Your task to perform on an android device: Find coffee shops on Maps Image 0: 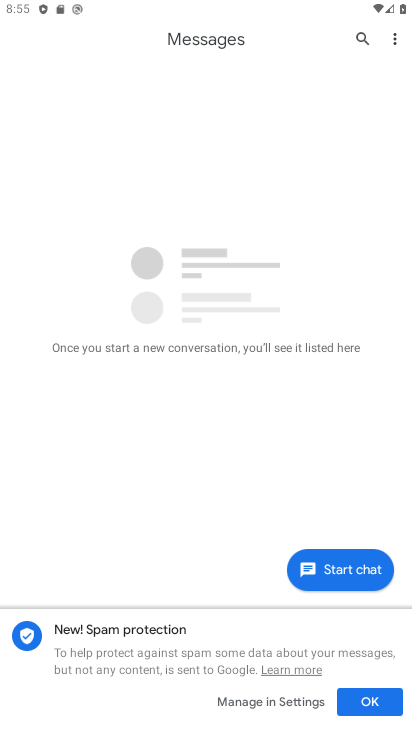
Step 0: press home button
Your task to perform on an android device: Find coffee shops on Maps Image 1: 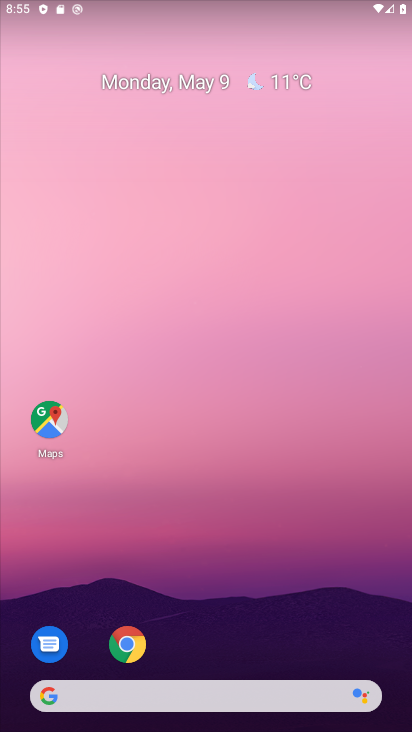
Step 1: drag from (231, 667) to (321, 0)
Your task to perform on an android device: Find coffee shops on Maps Image 2: 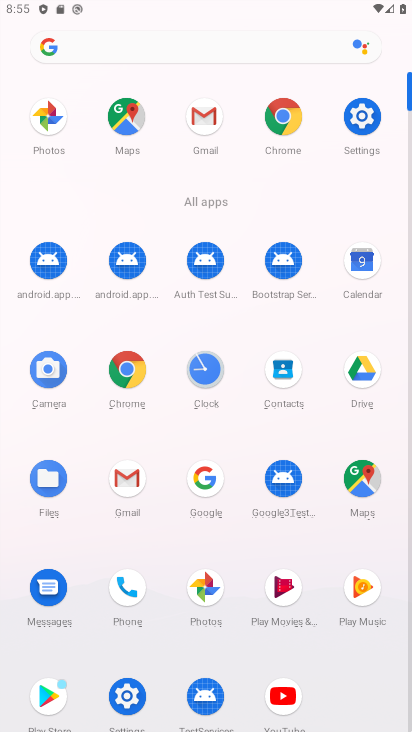
Step 2: click (363, 482)
Your task to perform on an android device: Find coffee shops on Maps Image 3: 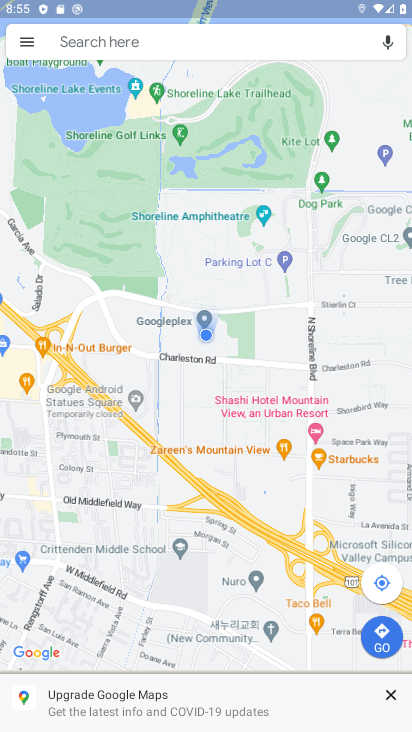
Step 3: click (140, 43)
Your task to perform on an android device: Find coffee shops on Maps Image 4: 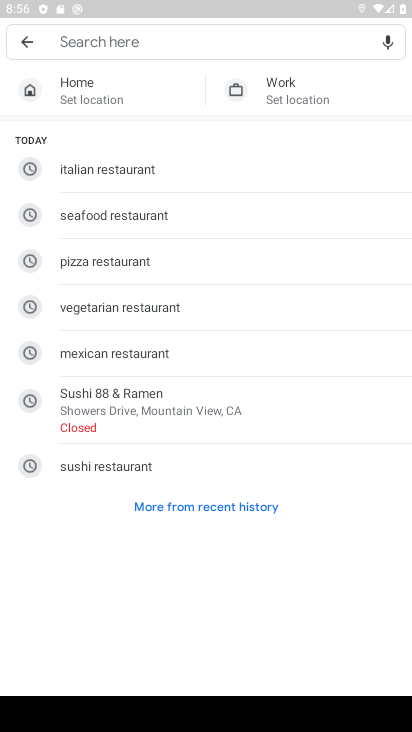
Step 4: type "coffee shop"
Your task to perform on an android device: Find coffee shops on Maps Image 5: 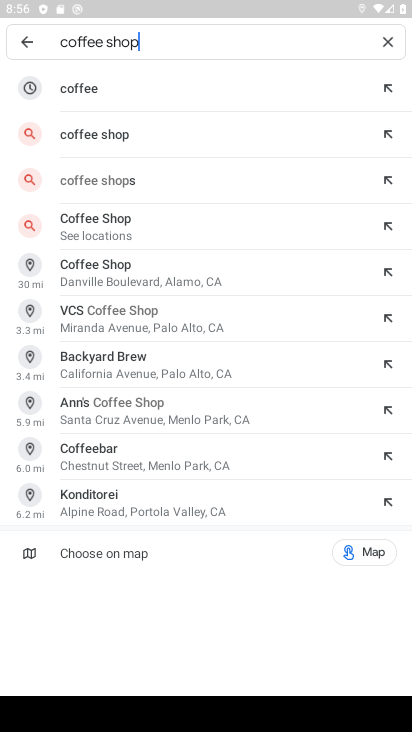
Step 5: click (163, 148)
Your task to perform on an android device: Find coffee shops on Maps Image 6: 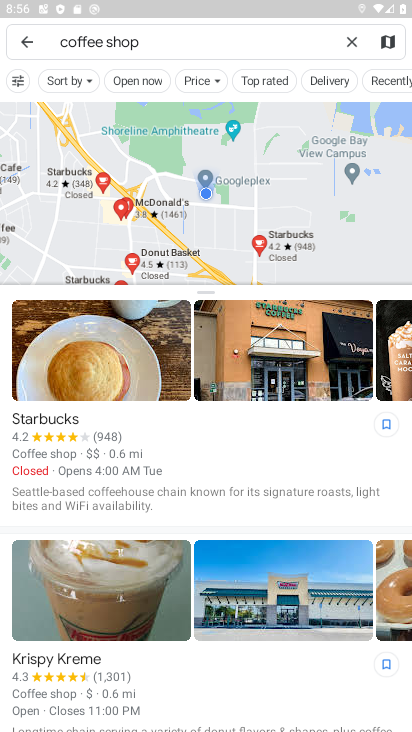
Step 6: task complete